Your task to perform on an android device: Go to ESPN.com Image 0: 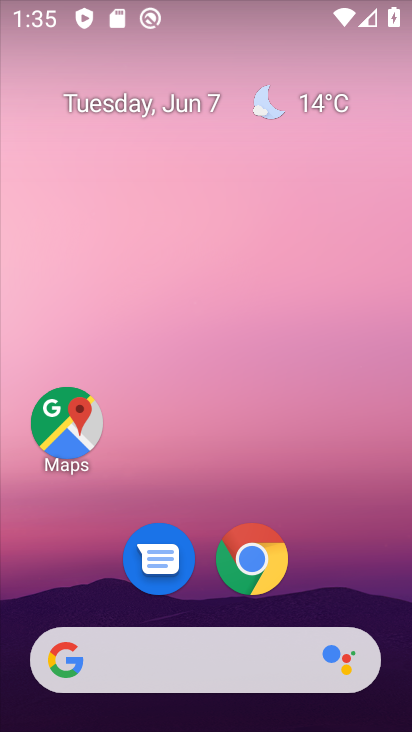
Step 0: drag from (274, 426) to (162, 26)
Your task to perform on an android device: Go to ESPN.com Image 1: 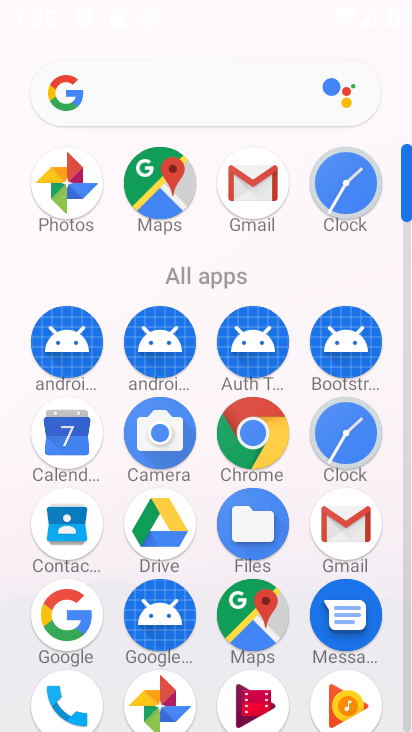
Step 1: drag from (12, 574) to (12, 281)
Your task to perform on an android device: Go to ESPN.com Image 2: 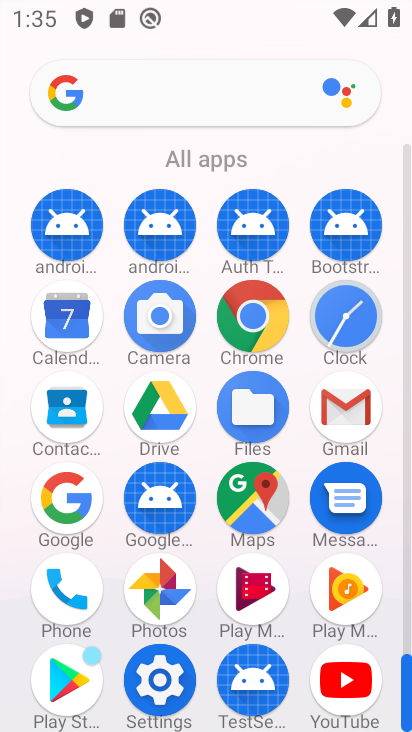
Step 2: click (253, 309)
Your task to perform on an android device: Go to ESPN.com Image 3: 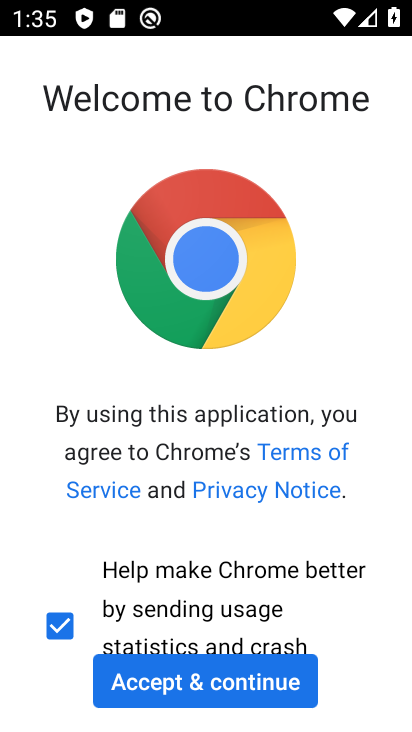
Step 3: click (184, 662)
Your task to perform on an android device: Go to ESPN.com Image 4: 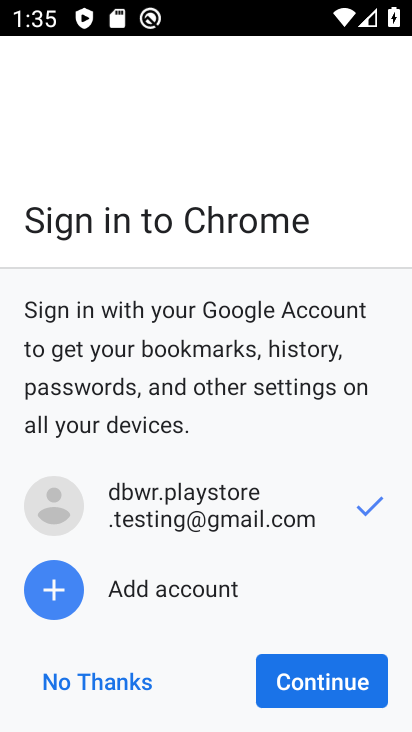
Step 4: click (314, 668)
Your task to perform on an android device: Go to ESPN.com Image 5: 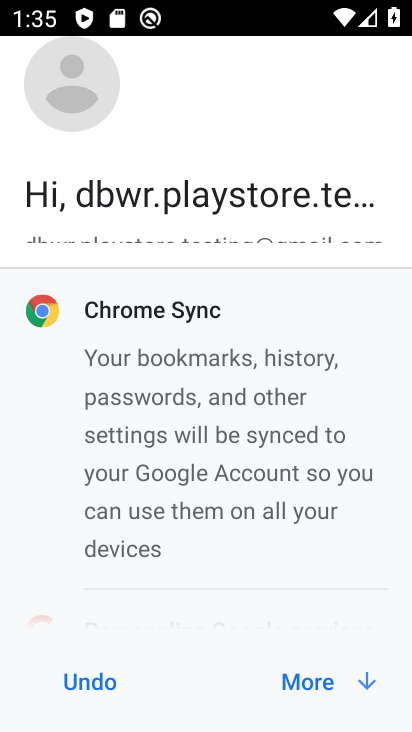
Step 5: click (314, 668)
Your task to perform on an android device: Go to ESPN.com Image 6: 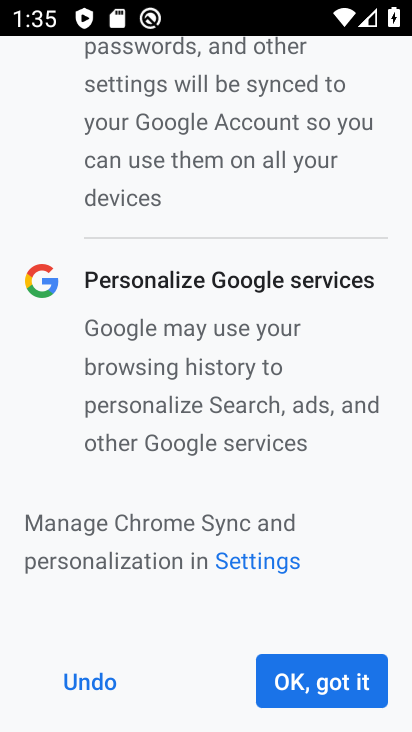
Step 6: click (314, 668)
Your task to perform on an android device: Go to ESPN.com Image 7: 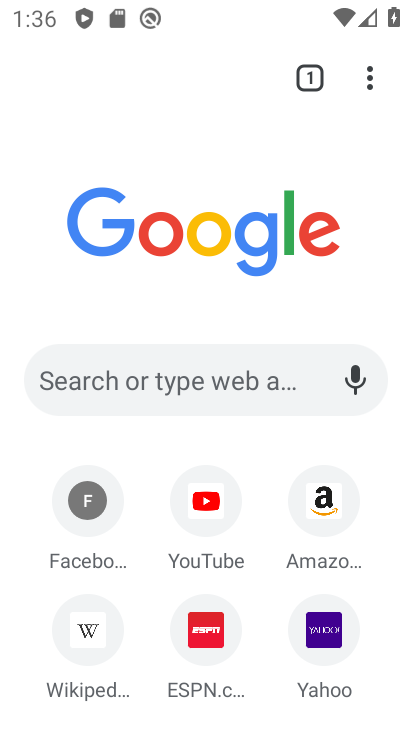
Step 7: click (215, 626)
Your task to perform on an android device: Go to ESPN.com Image 8: 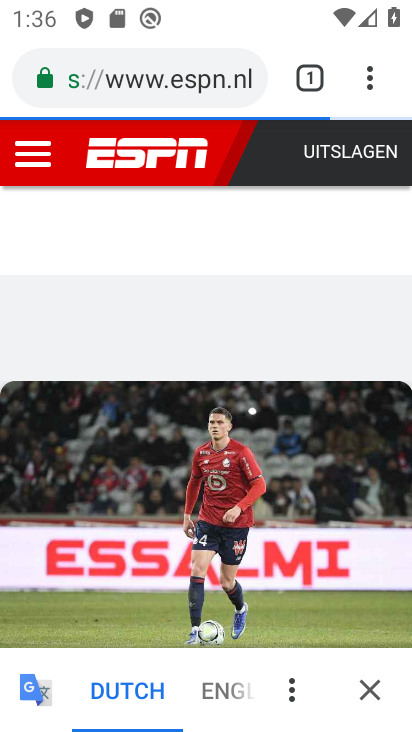
Step 8: drag from (267, 530) to (263, 230)
Your task to perform on an android device: Go to ESPN.com Image 9: 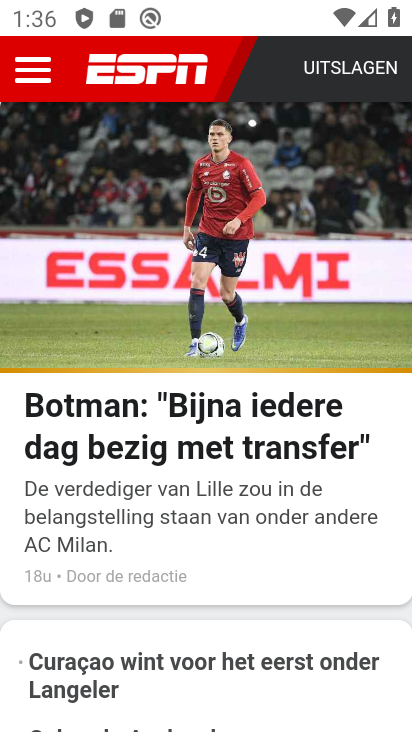
Step 9: drag from (253, 455) to (252, 173)
Your task to perform on an android device: Go to ESPN.com Image 10: 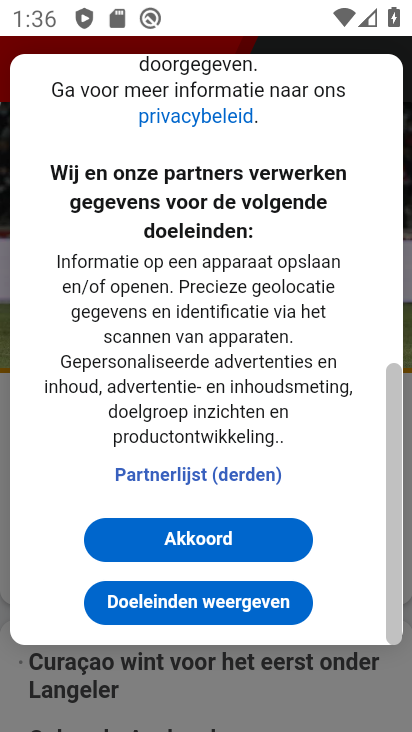
Step 10: click (218, 540)
Your task to perform on an android device: Go to ESPN.com Image 11: 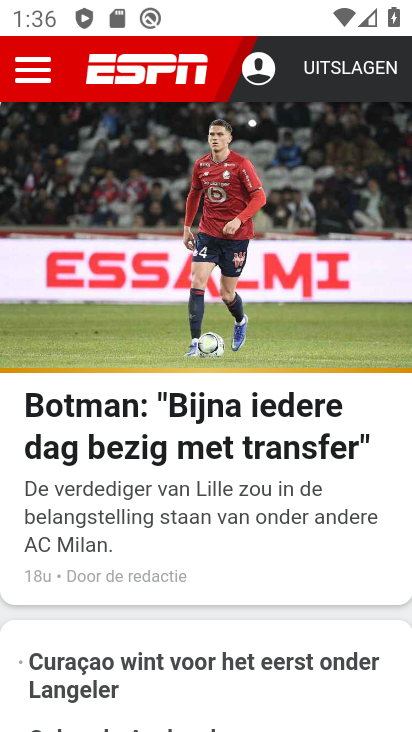
Step 11: task complete